Your task to perform on an android device: toggle translation in the chrome app Image 0: 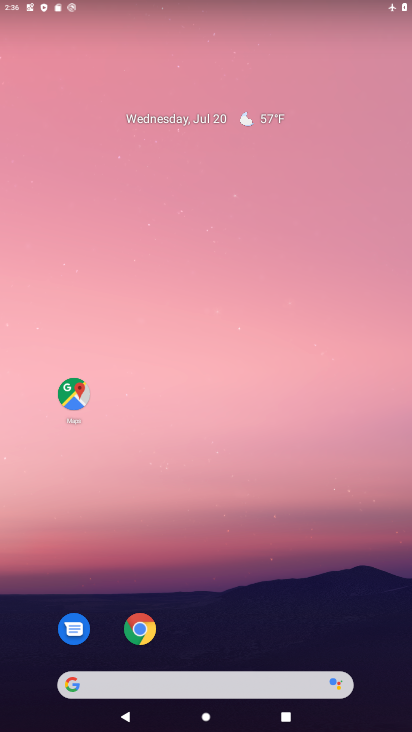
Step 0: click (149, 625)
Your task to perform on an android device: toggle translation in the chrome app Image 1: 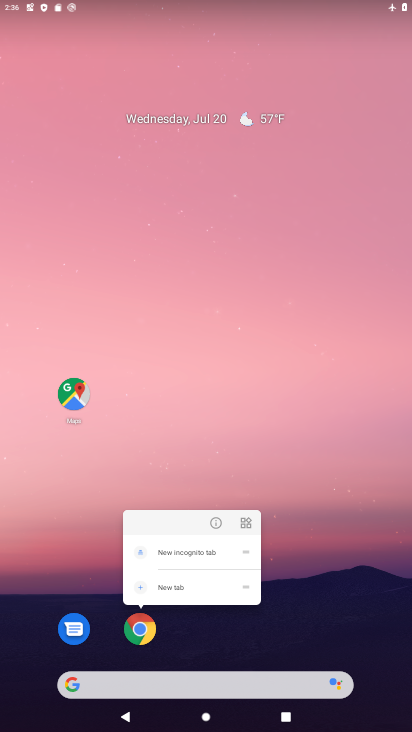
Step 1: click (135, 622)
Your task to perform on an android device: toggle translation in the chrome app Image 2: 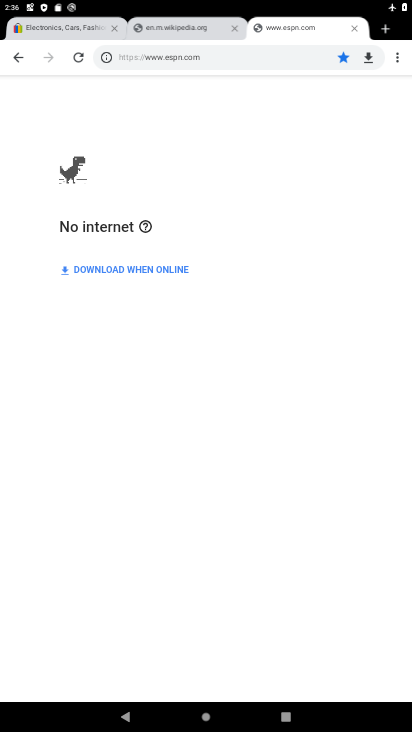
Step 2: click (399, 57)
Your task to perform on an android device: toggle translation in the chrome app Image 3: 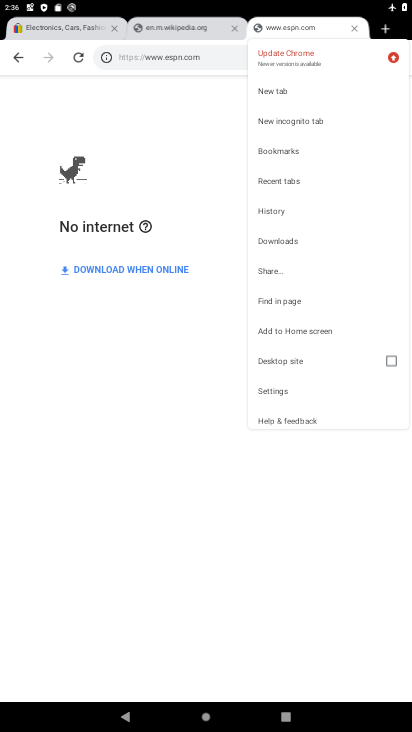
Step 3: click (278, 395)
Your task to perform on an android device: toggle translation in the chrome app Image 4: 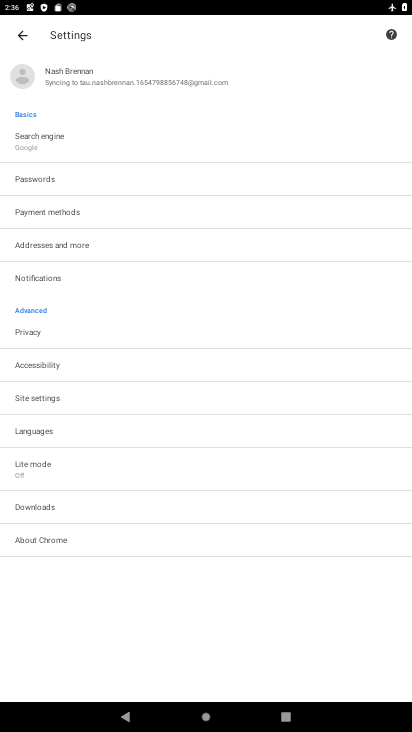
Step 4: click (38, 420)
Your task to perform on an android device: toggle translation in the chrome app Image 5: 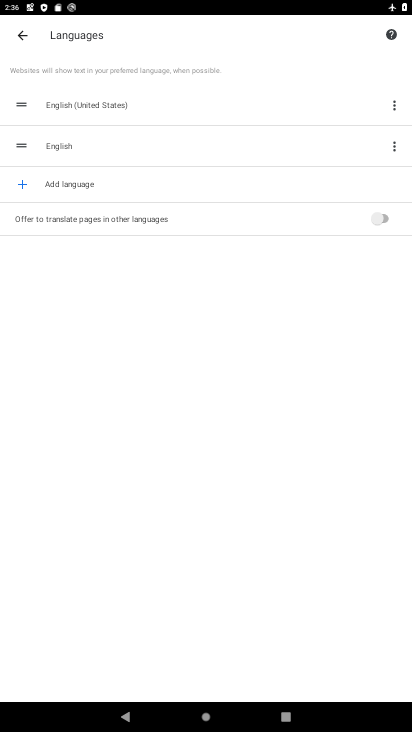
Step 5: click (390, 224)
Your task to perform on an android device: toggle translation in the chrome app Image 6: 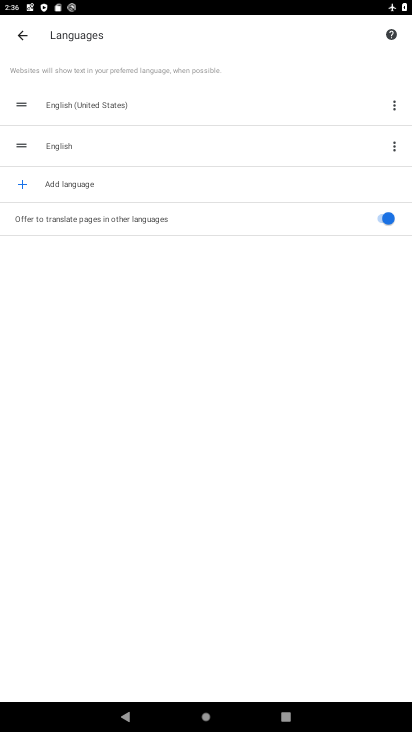
Step 6: task complete